Your task to perform on an android device: Go to Wikipedia Image 0: 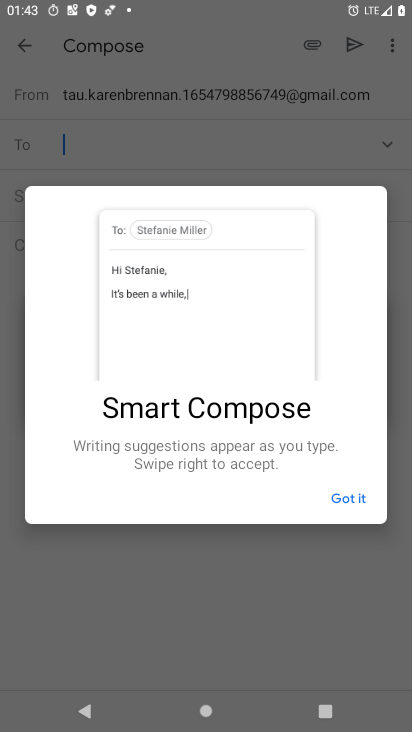
Step 0: click (353, 495)
Your task to perform on an android device: Go to Wikipedia Image 1: 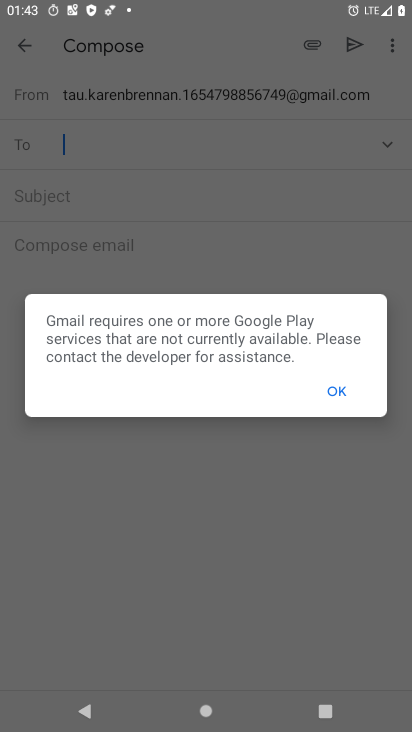
Step 1: press home button
Your task to perform on an android device: Go to Wikipedia Image 2: 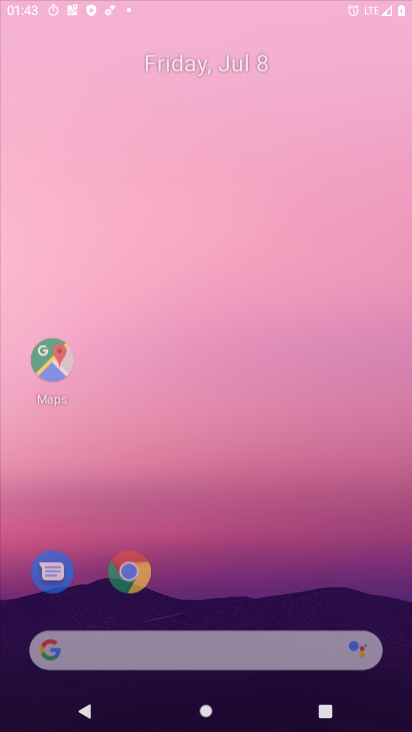
Step 2: drag from (308, 529) to (33, 22)
Your task to perform on an android device: Go to Wikipedia Image 3: 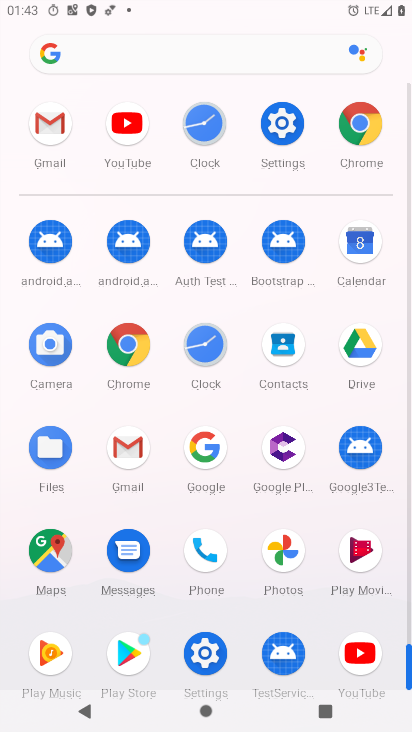
Step 3: click (359, 129)
Your task to perform on an android device: Go to Wikipedia Image 4: 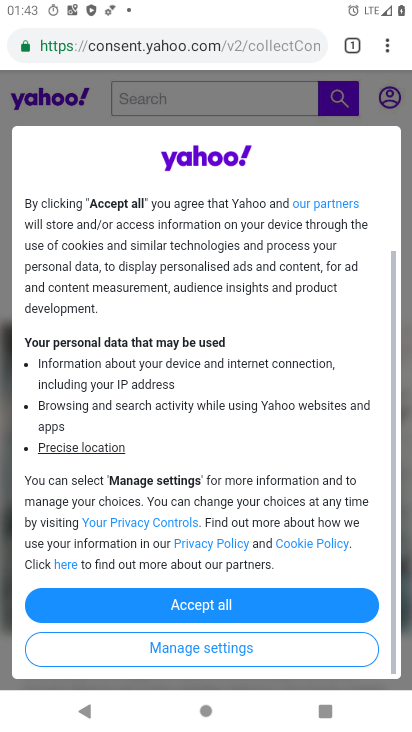
Step 4: click (274, 45)
Your task to perform on an android device: Go to Wikipedia Image 5: 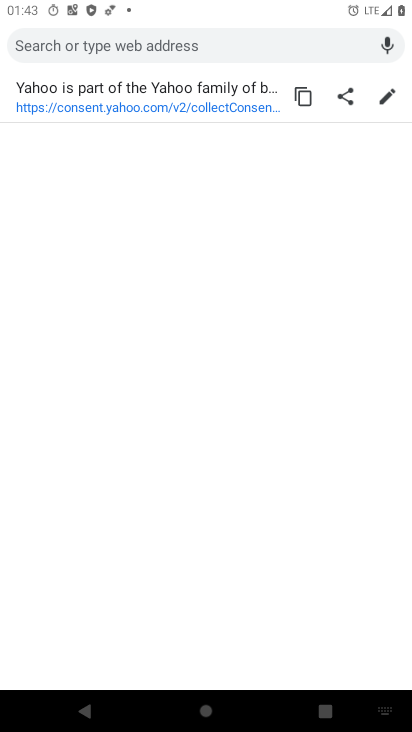
Step 5: type "Wikipedia"
Your task to perform on an android device: Go to Wikipedia Image 6: 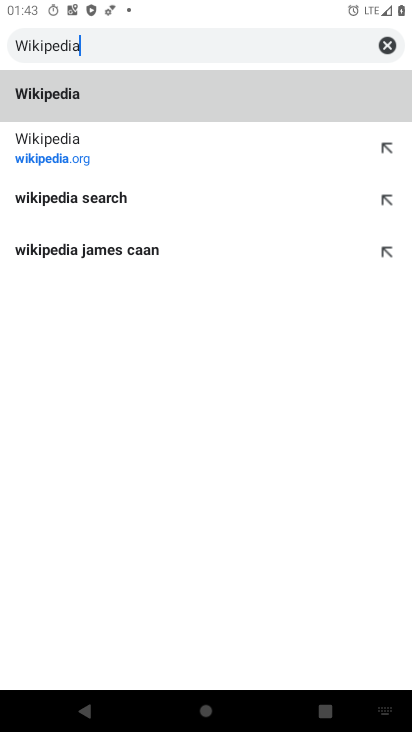
Step 6: type ""
Your task to perform on an android device: Go to Wikipedia Image 7: 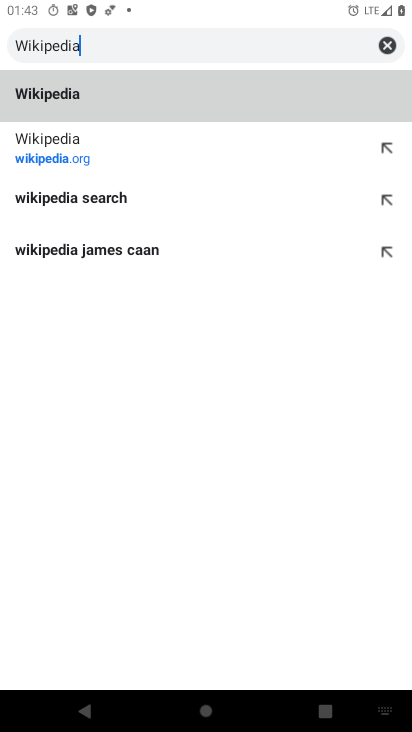
Step 7: click (40, 144)
Your task to perform on an android device: Go to Wikipedia Image 8: 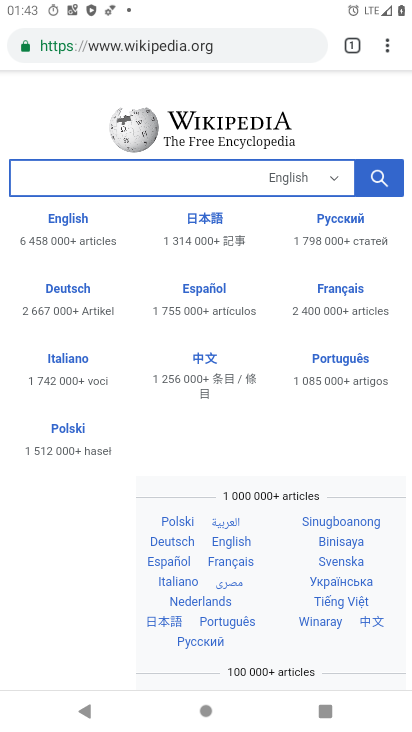
Step 8: task complete